Your task to perform on an android device: Go to wifi settings Image 0: 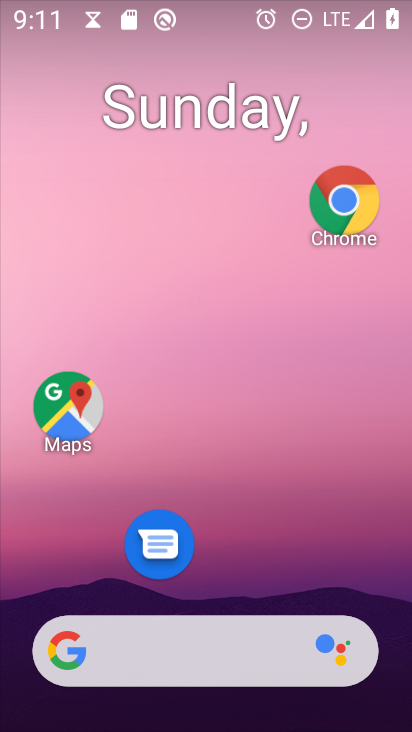
Step 0: drag from (258, 574) to (258, 45)
Your task to perform on an android device: Go to wifi settings Image 1: 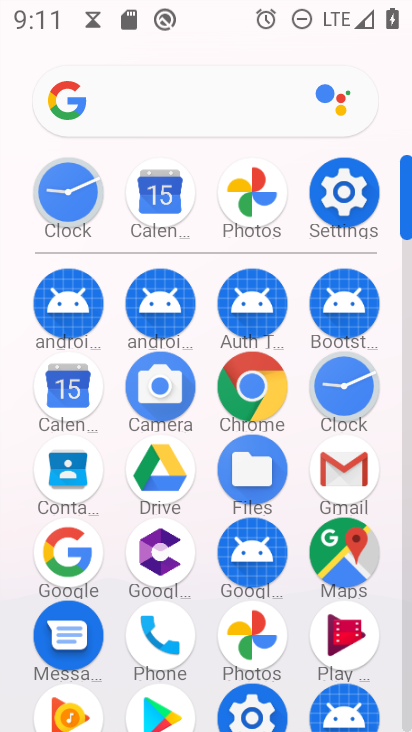
Step 1: click (321, 181)
Your task to perform on an android device: Go to wifi settings Image 2: 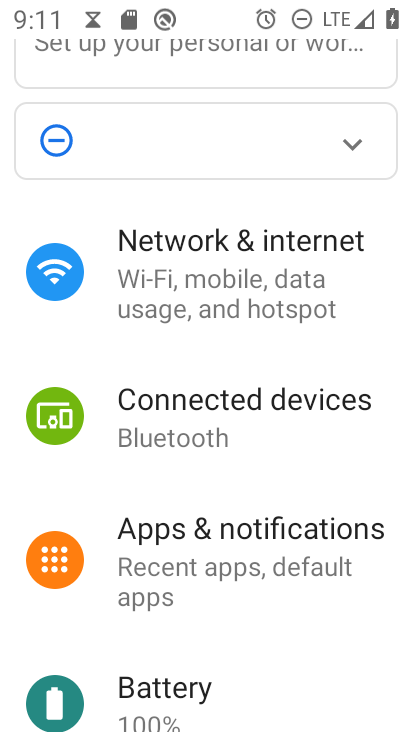
Step 2: click (234, 285)
Your task to perform on an android device: Go to wifi settings Image 3: 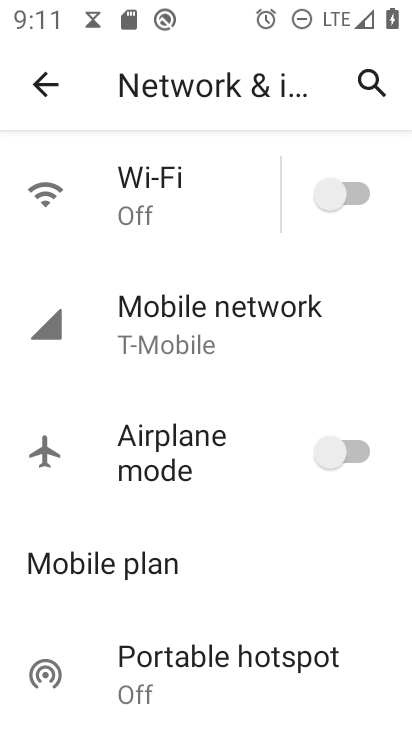
Step 3: click (106, 199)
Your task to perform on an android device: Go to wifi settings Image 4: 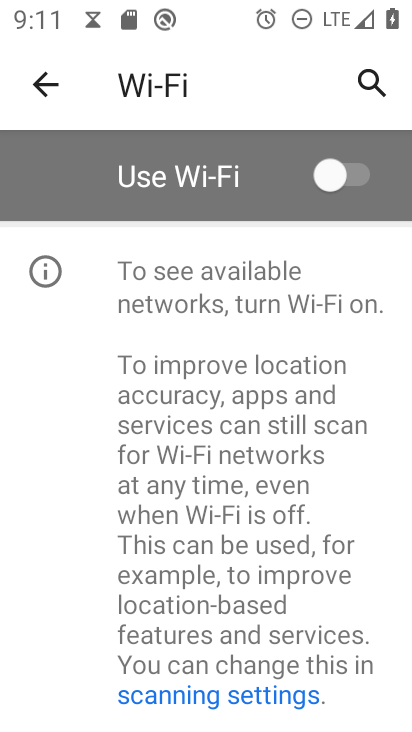
Step 4: task complete